Your task to perform on an android device: Clear the shopping cart on newegg. Add "razer nari" to the cart on newegg Image 0: 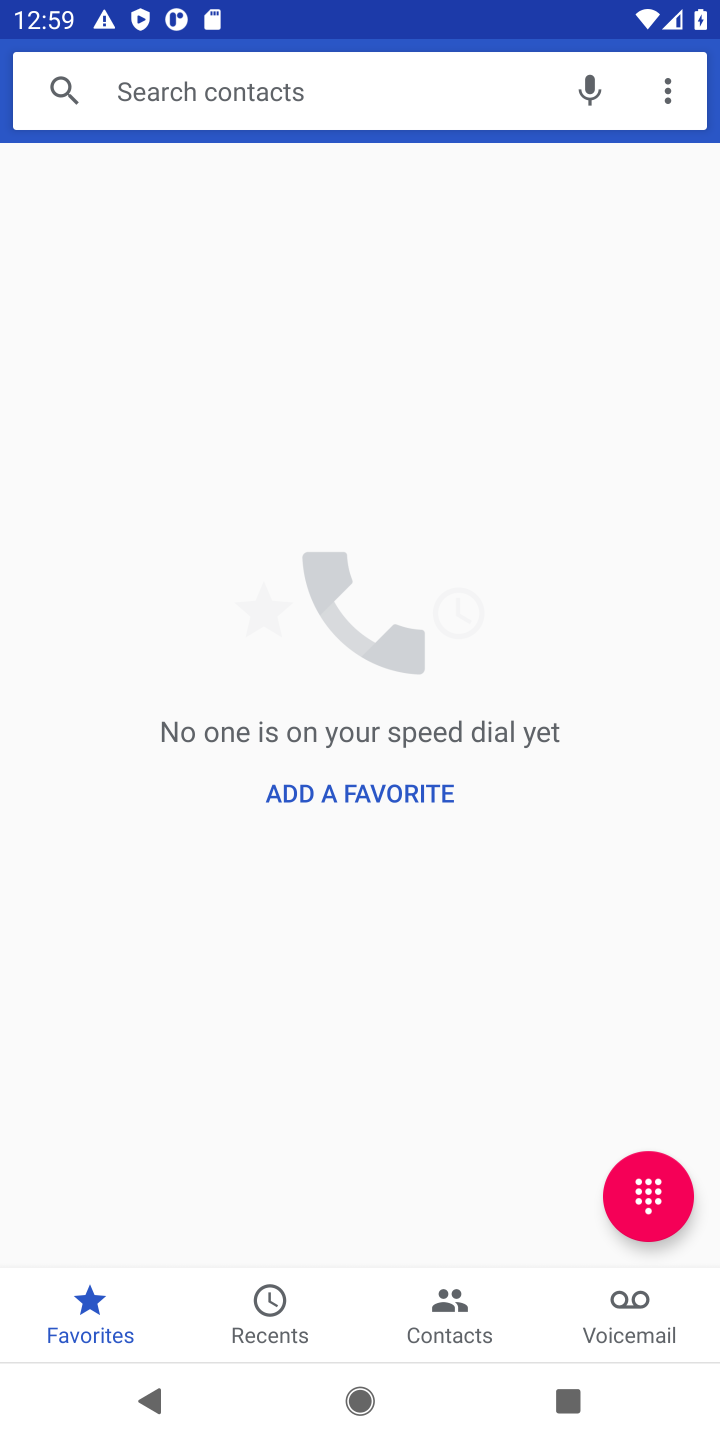
Step 0: press home button
Your task to perform on an android device: Clear the shopping cart on newegg. Add "razer nari" to the cart on newegg Image 1: 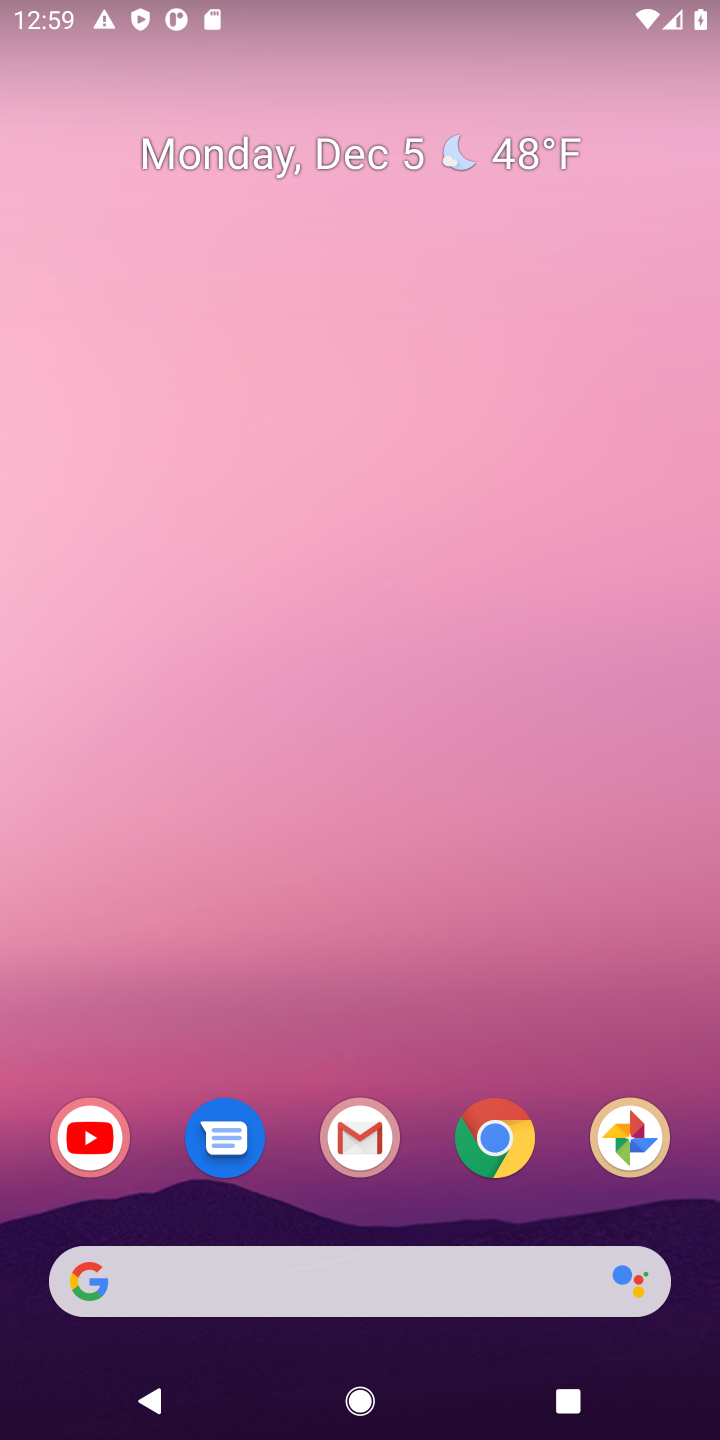
Step 1: click (517, 1146)
Your task to perform on an android device: Clear the shopping cart on newegg. Add "razer nari" to the cart on newegg Image 2: 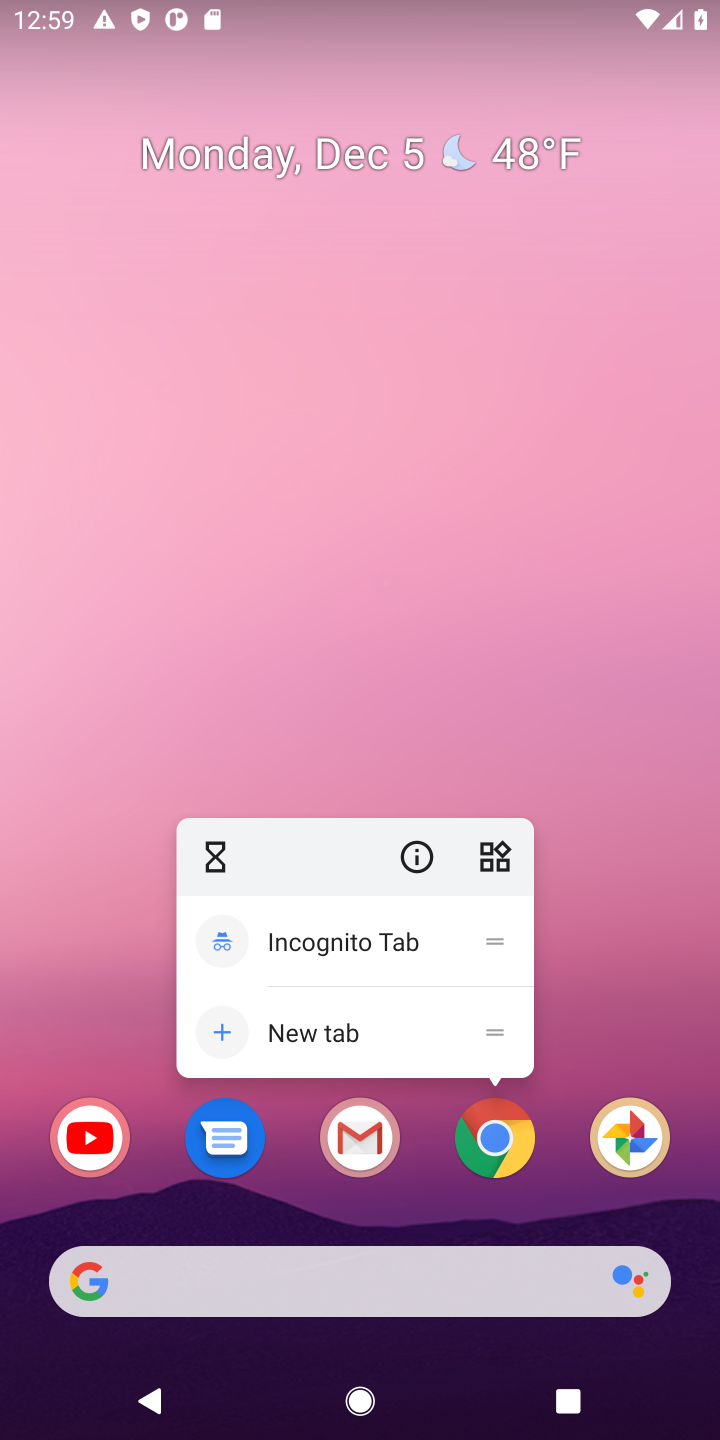
Step 2: click (506, 1147)
Your task to perform on an android device: Clear the shopping cart on newegg. Add "razer nari" to the cart on newegg Image 3: 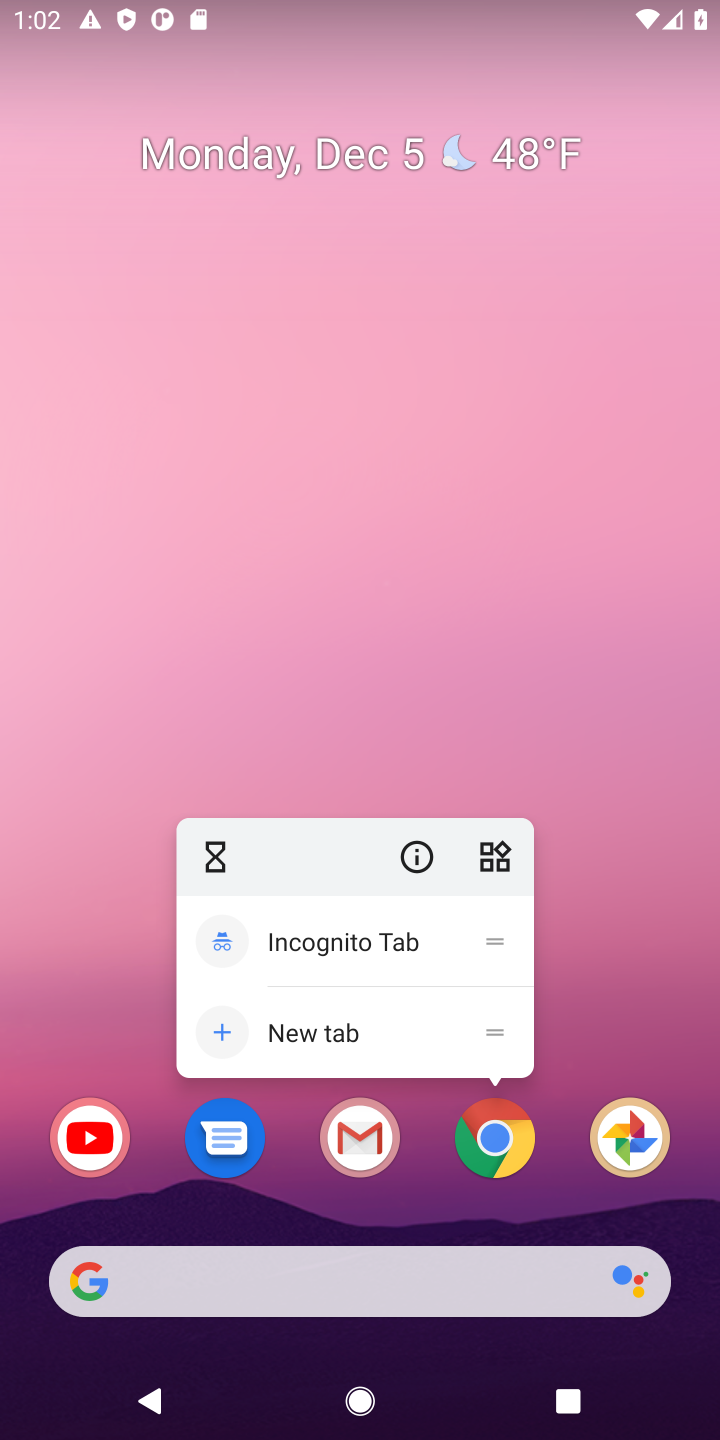
Step 3: click (500, 1156)
Your task to perform on an android device: Clear the shopping cart on newegg. Add "razer nari" to the cart on newegg Image 4: 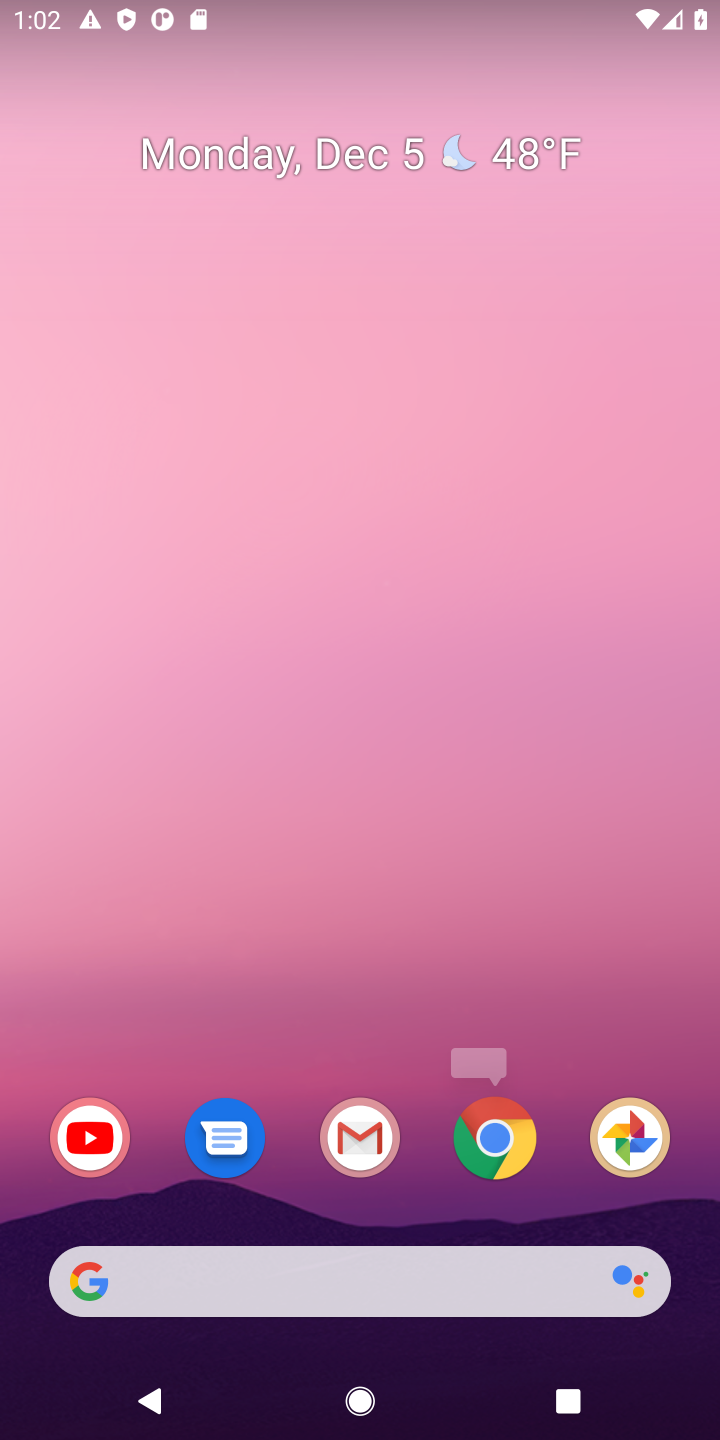
Step 4: click (500, 1156)
Your task to perform on an android device: Clear the shopping cart on newegg. Add "razer nari" to the cart on newegg Image 5: 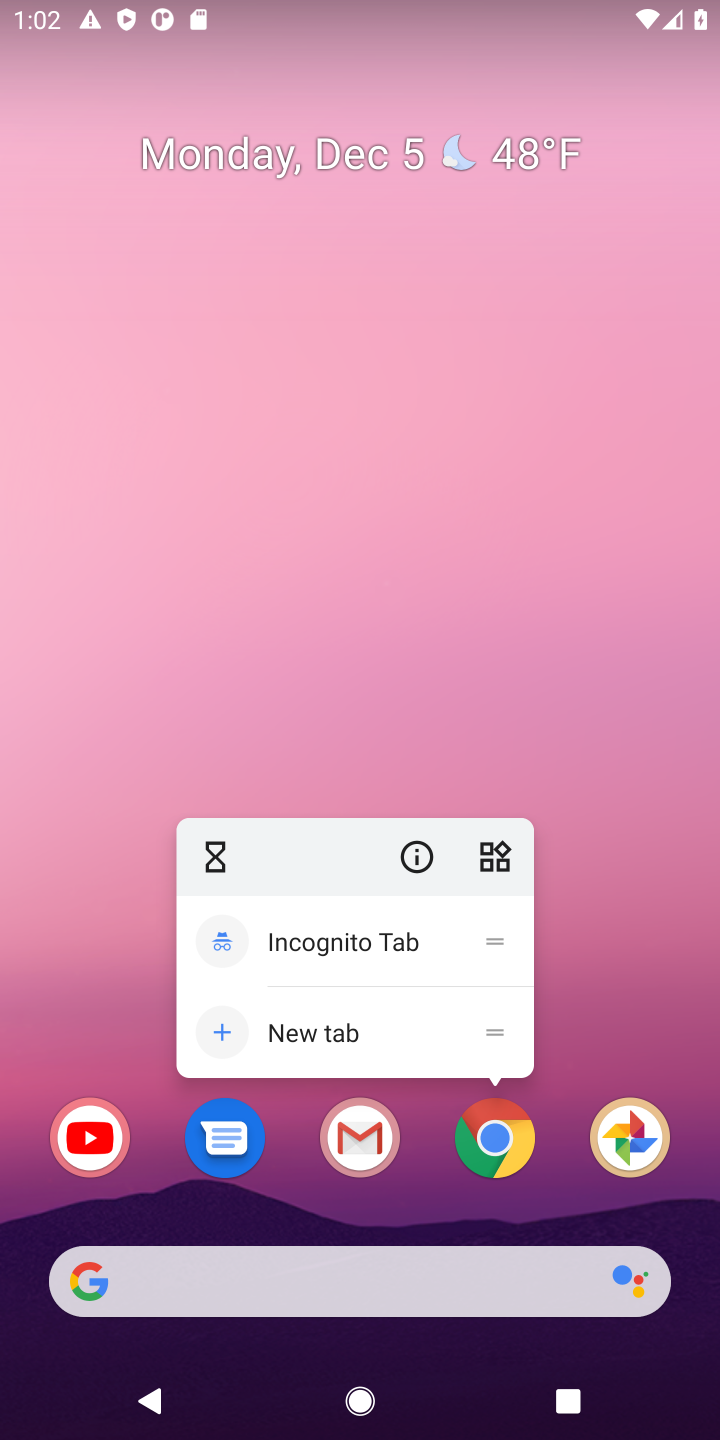
Step 5: click (498, 1125)
Your task to perform on an android device: Clear the shopping cart on newegg. Add "razer nari" to the cart on newegg Image 6: 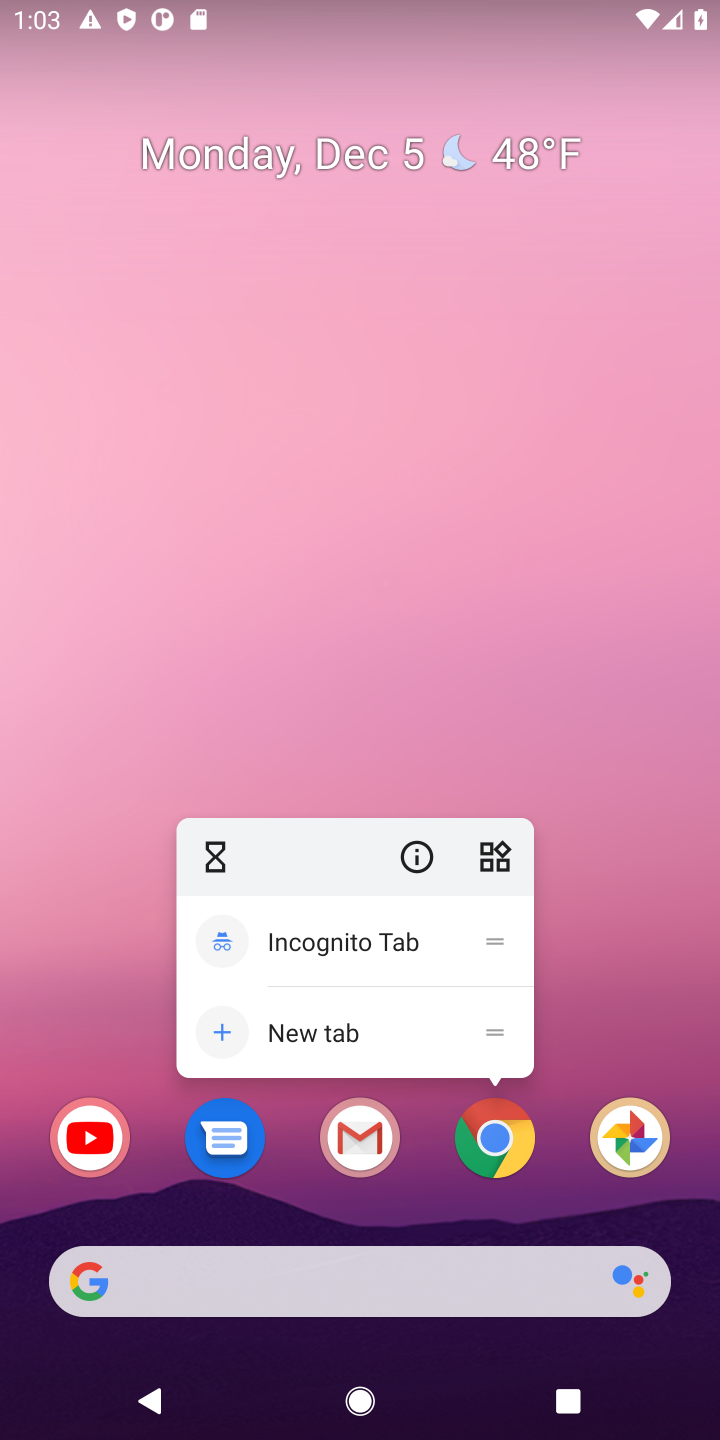
Step 6: click (500, 1123)
Your task to perform on an android device: Clear the shopping cart on newegg. Add "razer nari" to the cart on newegg Image 7: 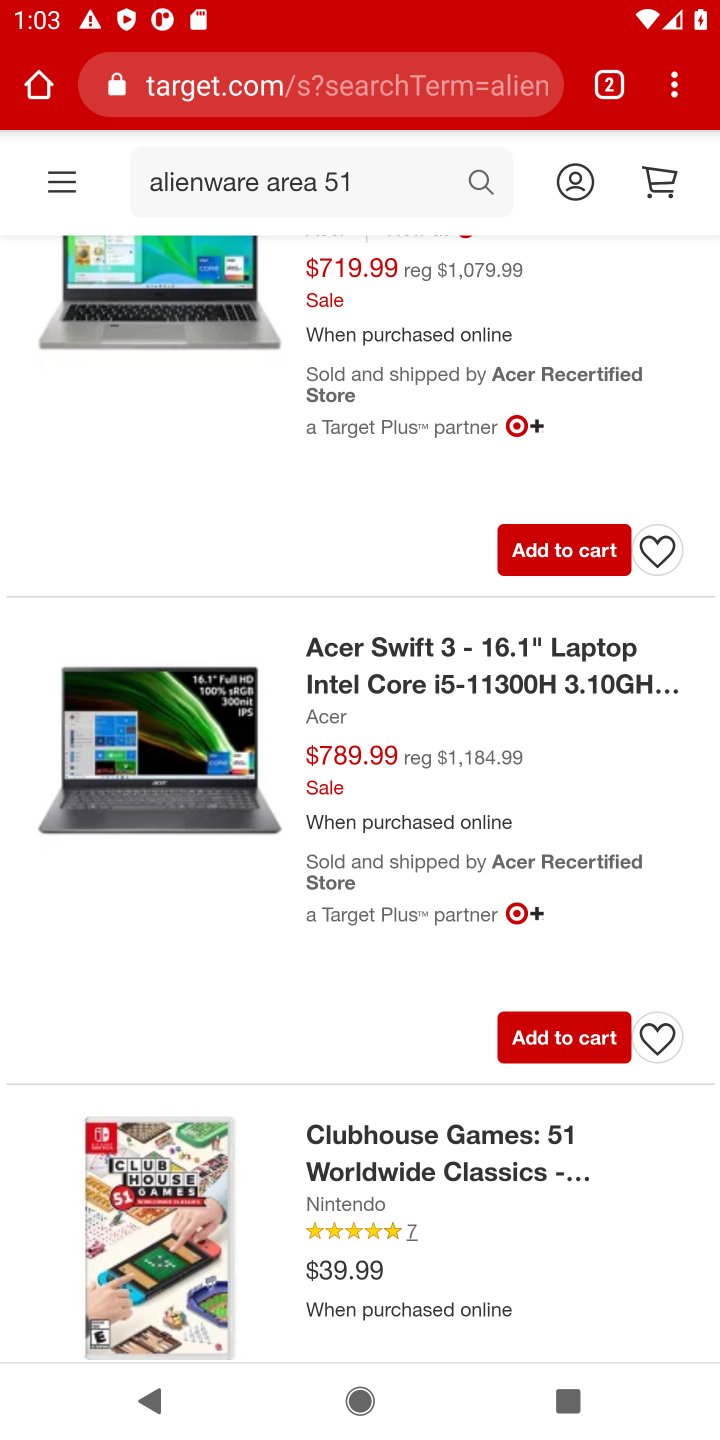
Step 7: click (500, 1123)
Your task to perform on an android device: Clear the shopping cart on newegg. Add "razer nari" to the cart on newegg Image 8: 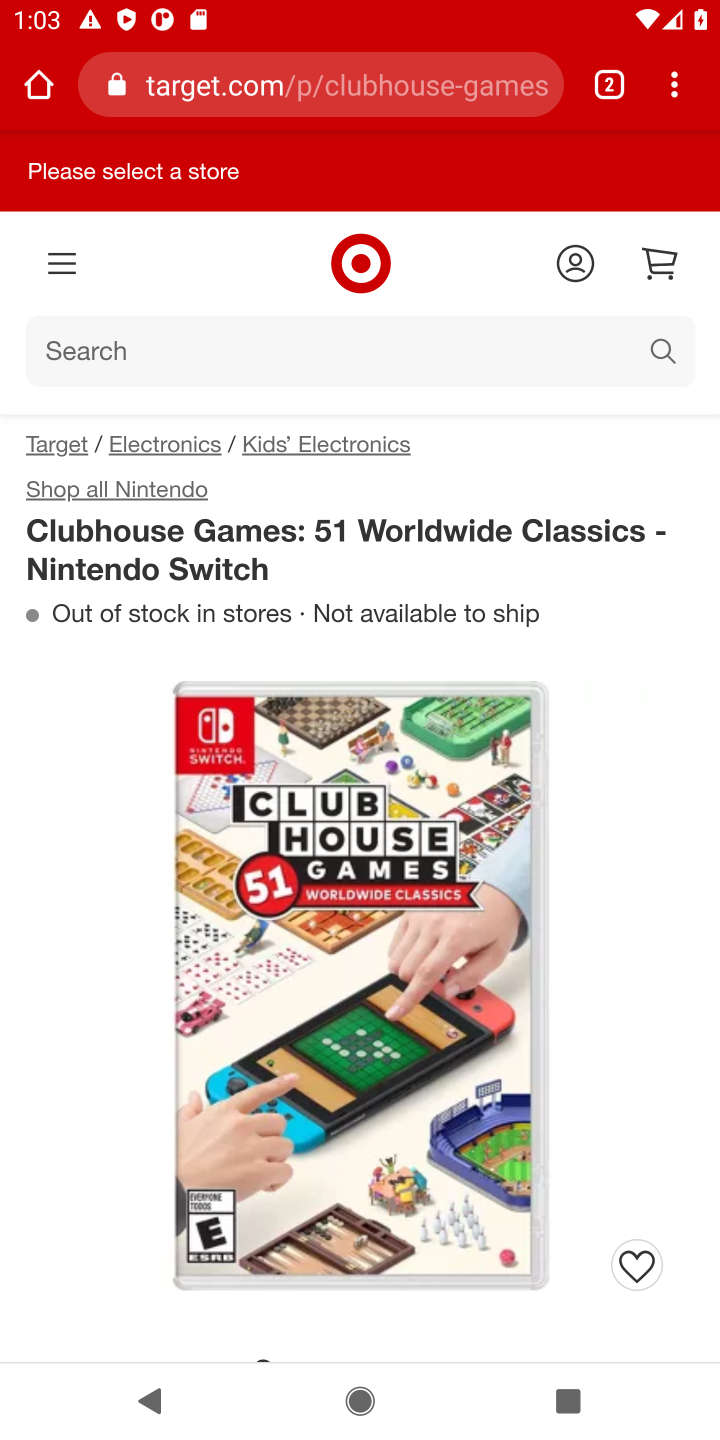
Step 8: click (351, 70)
Your task to perform on an android device: Clear the shopping cart on newegg. Add "razer nari" to the cart on newegg Image 9: 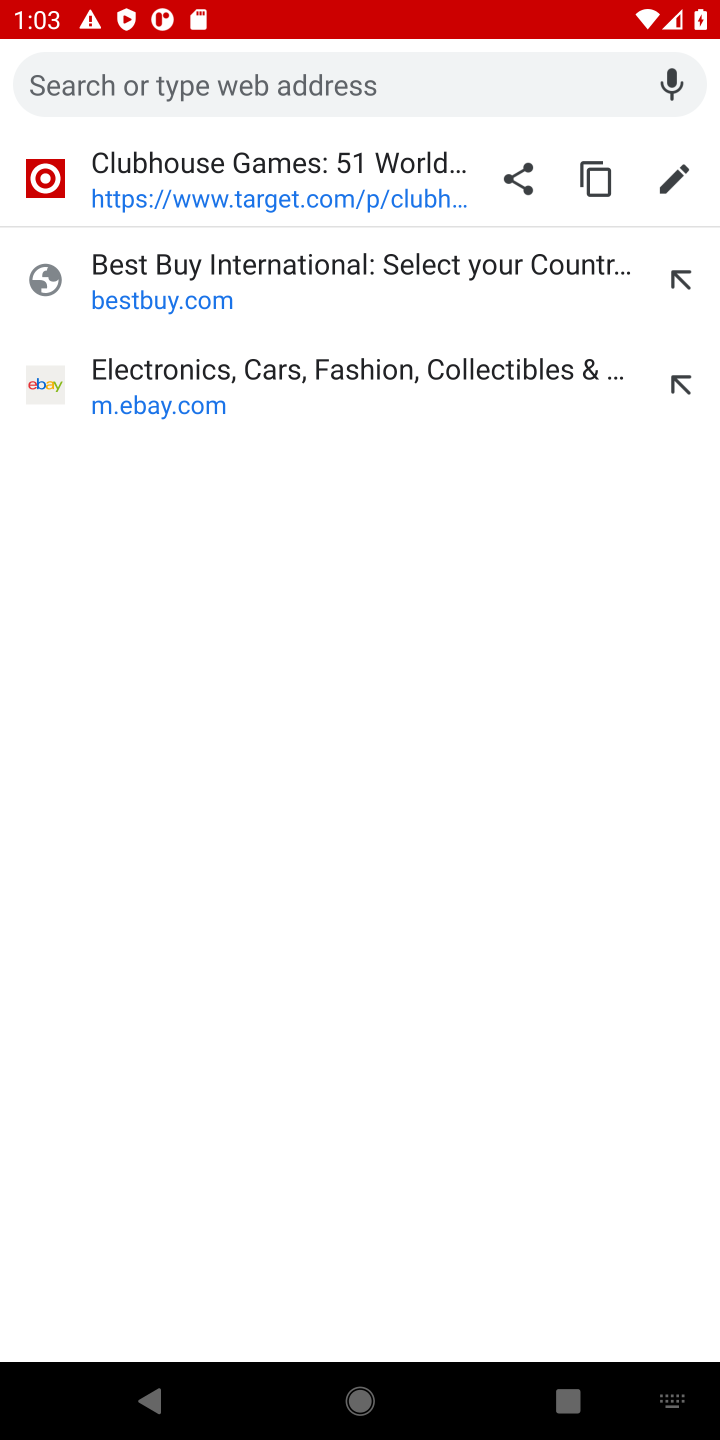
Step 9: type "newegg"
Your task to perform on an android device: Clear the shopping cart on newegg. Add "razer nari" to the cart on newegg Image 10: 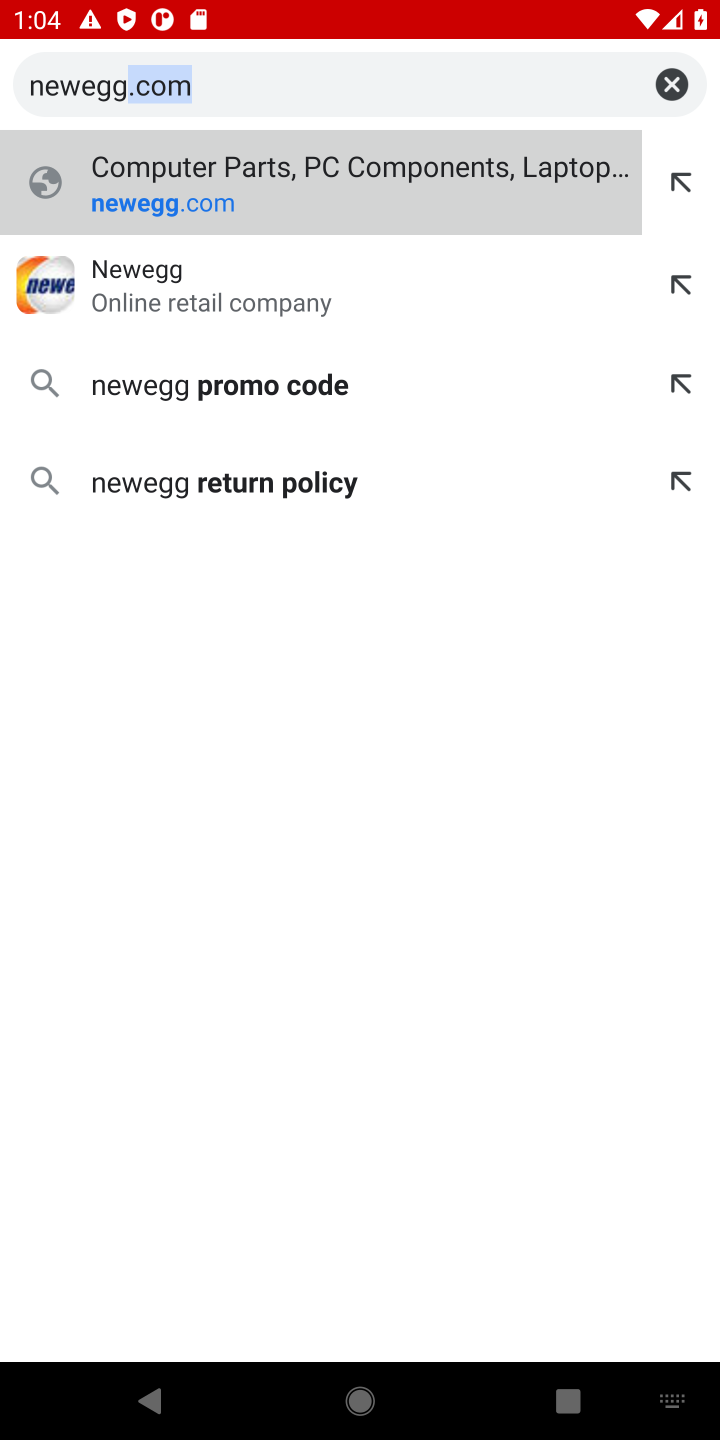
Step 10: click (153, 307)
Your task to perform on an android device: Clear the shopping cart on newegg. Add "razer nari" to the cart on newegg Image 11: 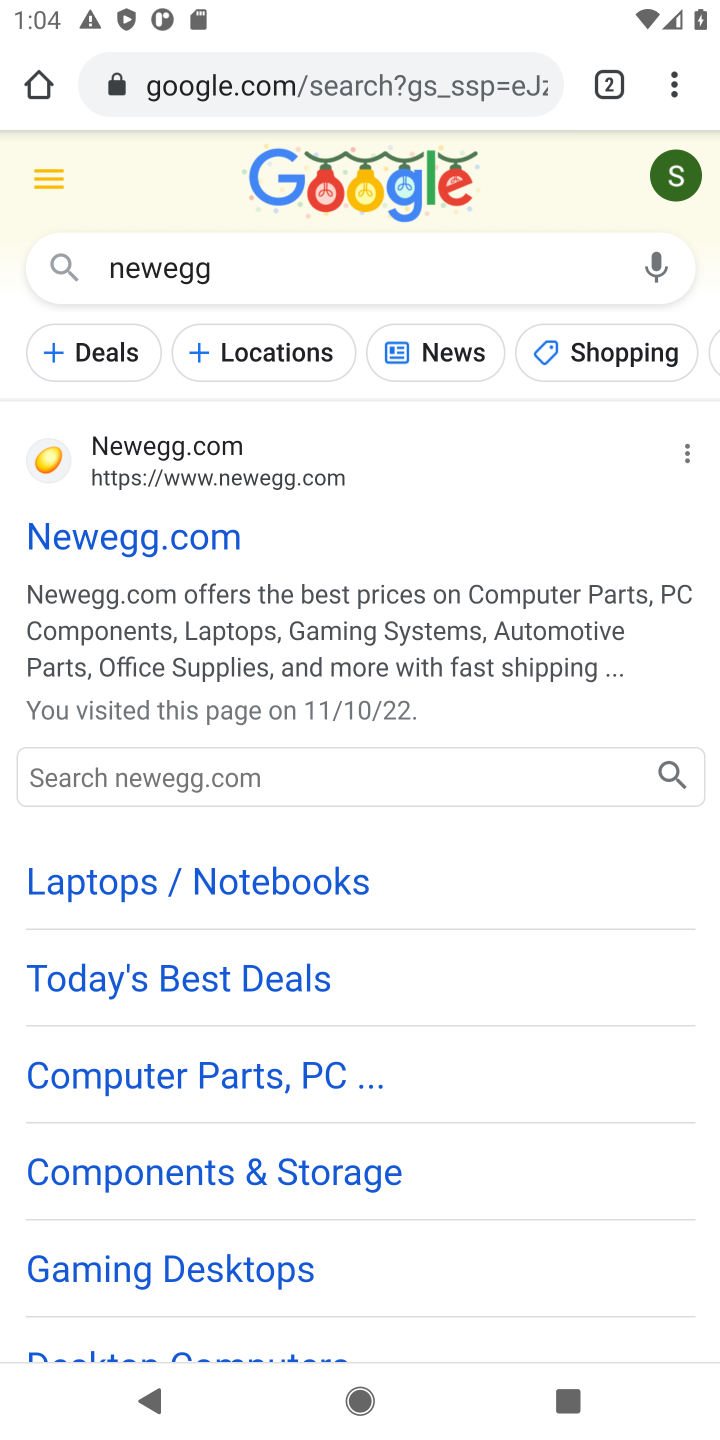
Step 11: click (130, 551)
Your task to perform on an android device: Clear the shopping cart on newegg. Add "razer nari" to the cart on newegg Image 12: 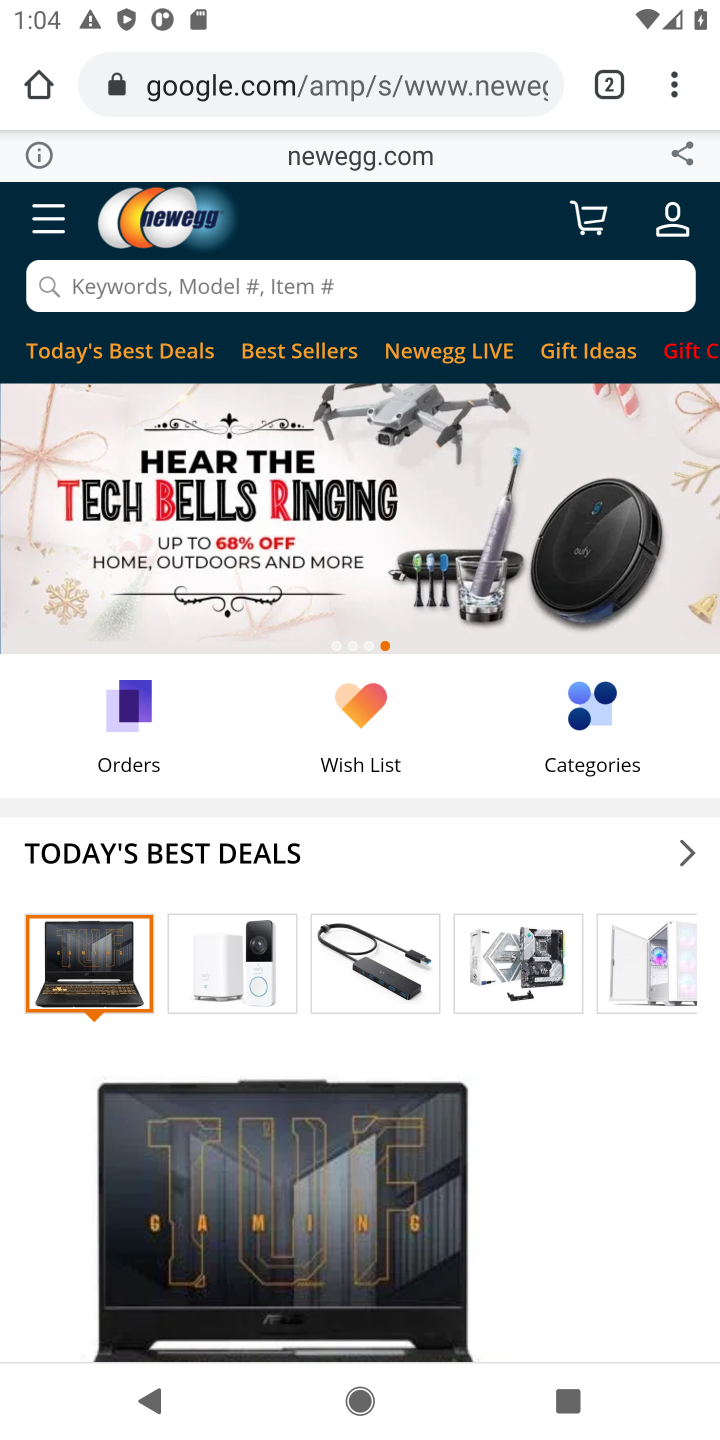
Step 12: click (299, 299)
Your task to perform on an android device: Clear the shopping cart on newegg. Add "razer nari" to the cart on newegg Image 13: 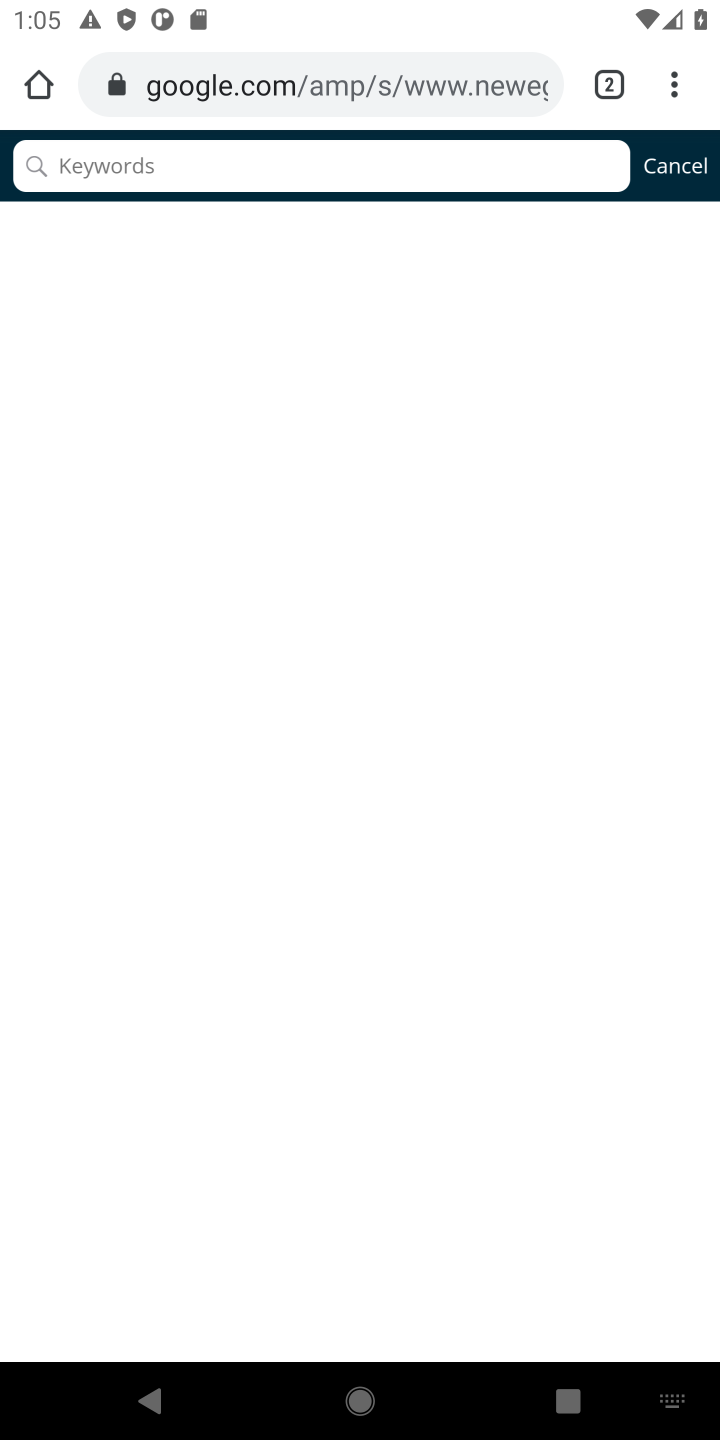
Step 13: type "razer nari"
Your task to perform on an android device: Clear the shopping cart on newegg. Add "razer nari" to the cart on newegg Image 14: 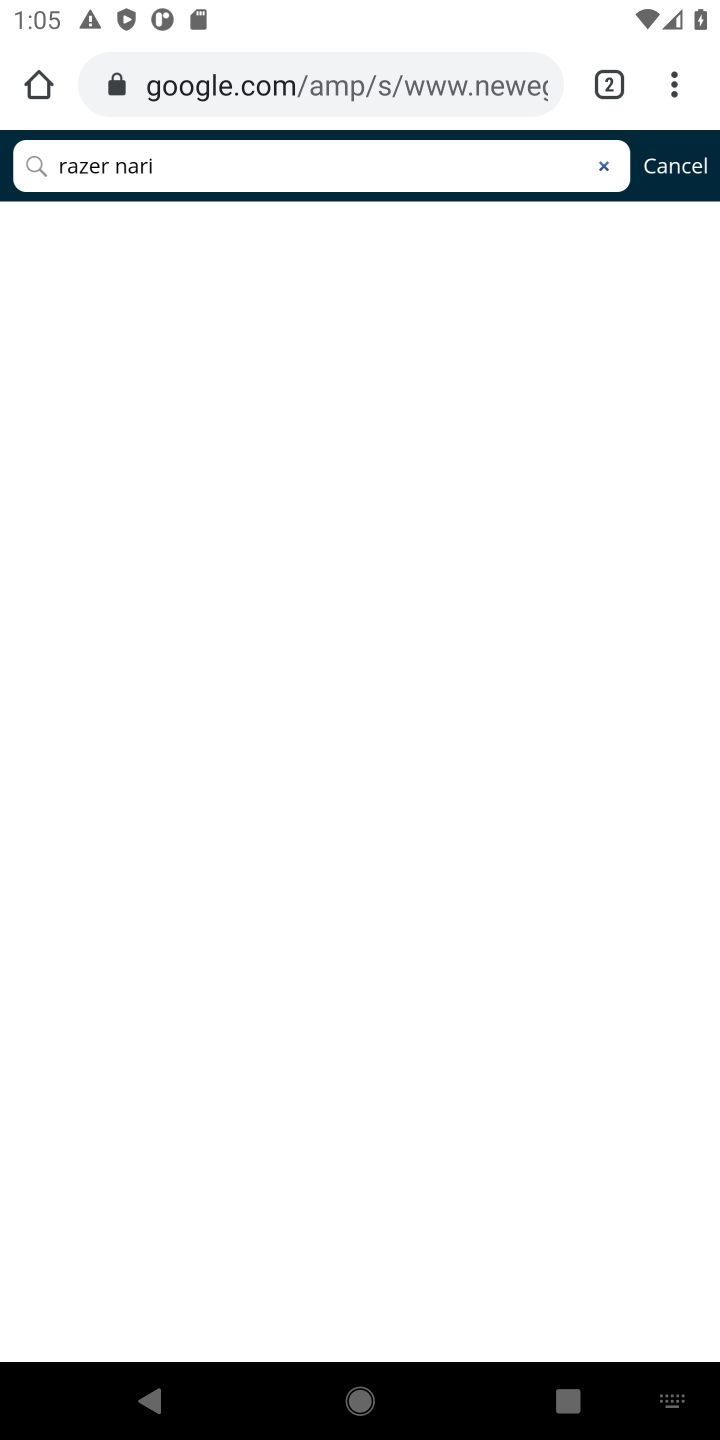
Step 14: type ""
Your task to perform on an android device: Clear the shopping cart on newegg. Add "razer nari" to the cart on newegg Image 15: 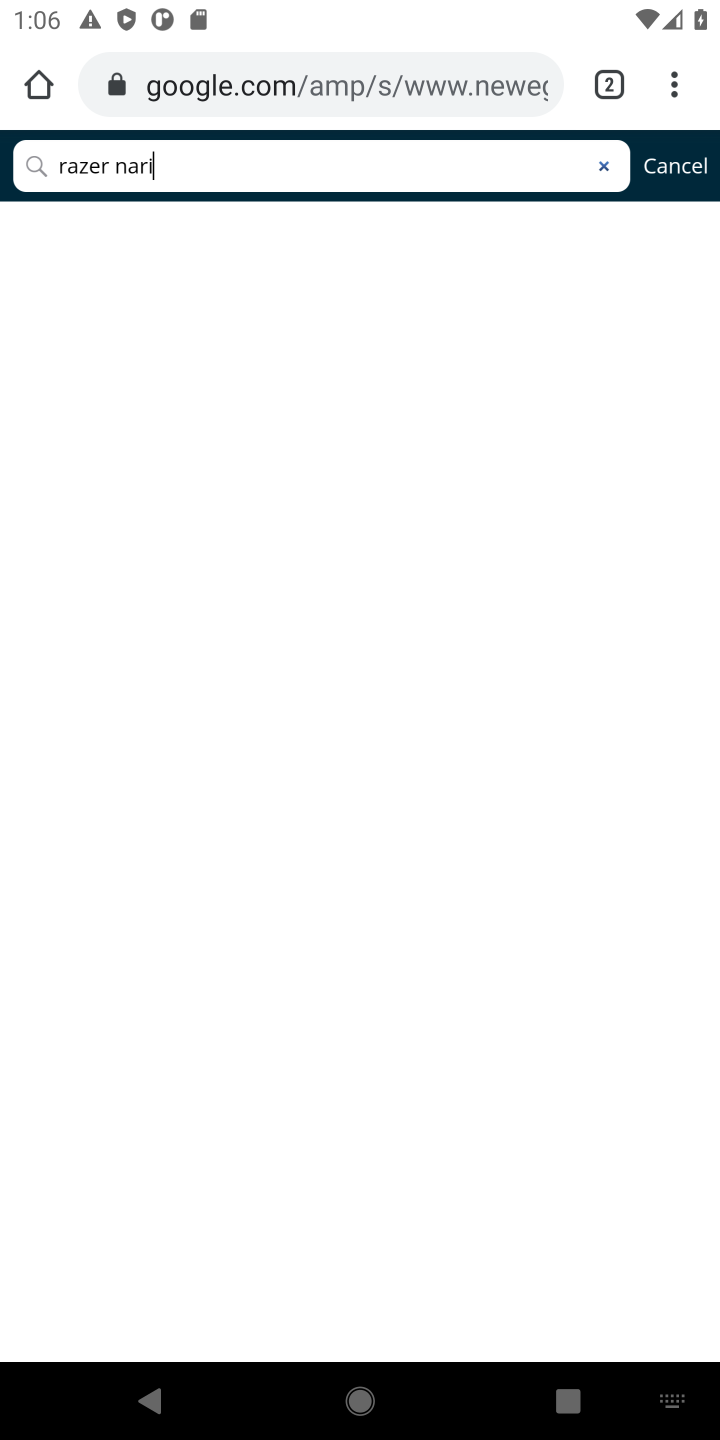
Step 15: task complete